Your task to perform on an android device: See recent photos Image 0: 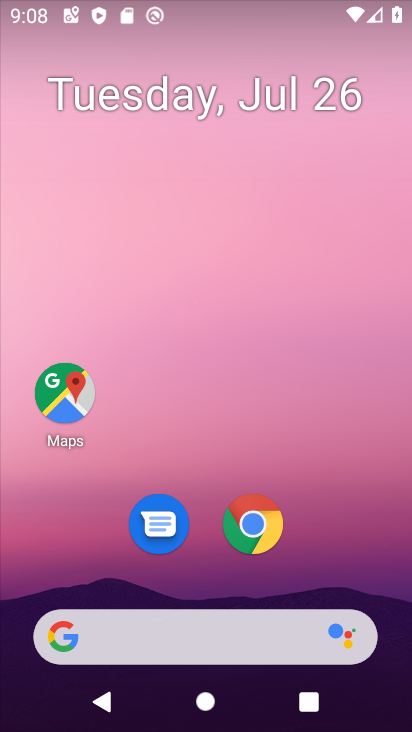
Step 0: press home button
Your task to perform on an android device: See recent photos Image 1: 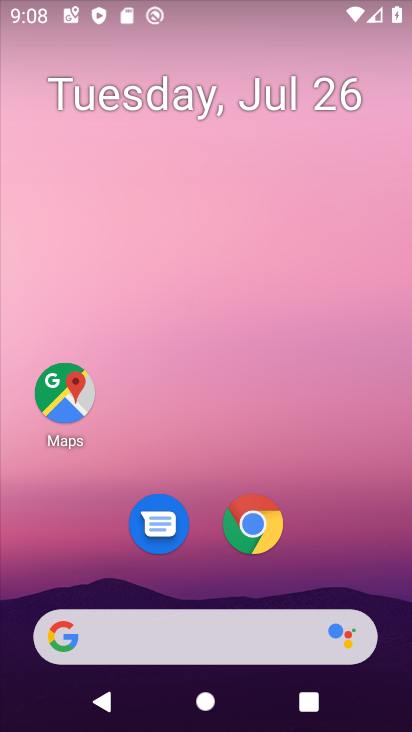
Step 1: drag from (166, 621) to (400, 31)
Your task to perform on an android device: See recent photos Image 2: 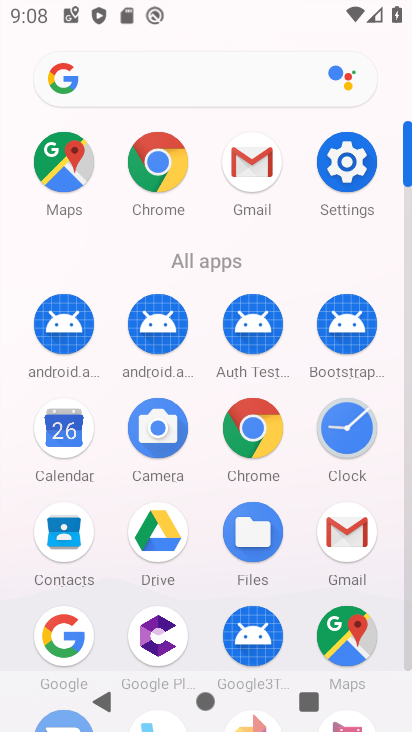
Step 2: drag from (206, 533) to (340, 155)
Your task to perform on an android device: See recent photos Image 3: 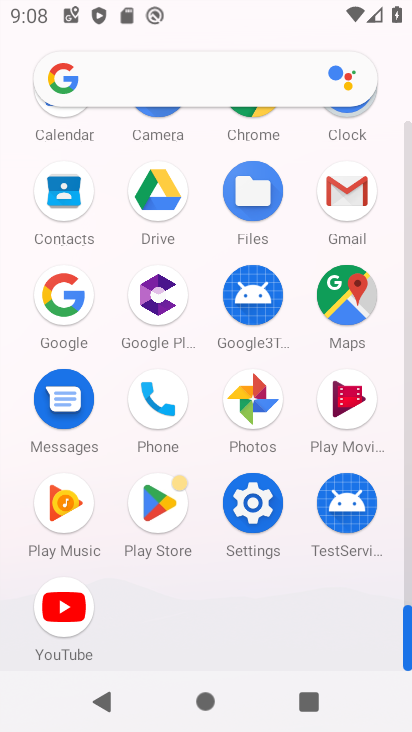
Step 3: click (253, 395)
Your task to perform on an android device: See recent photos Image 4: 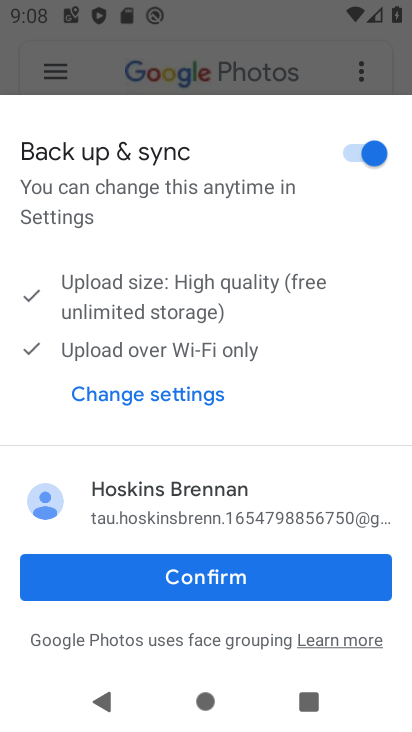
Step 4: click (214, 583)
Your task to perform on an android device: See recent photos Image 5: 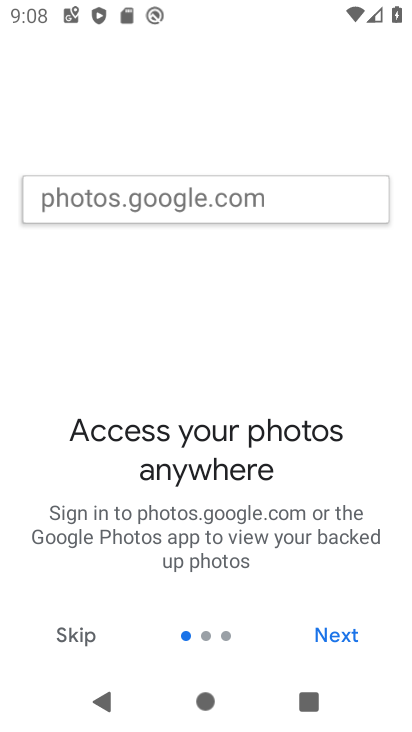
Step 5: click (345, 626)
Your task to perform on an android device: See recent photos Image 6: 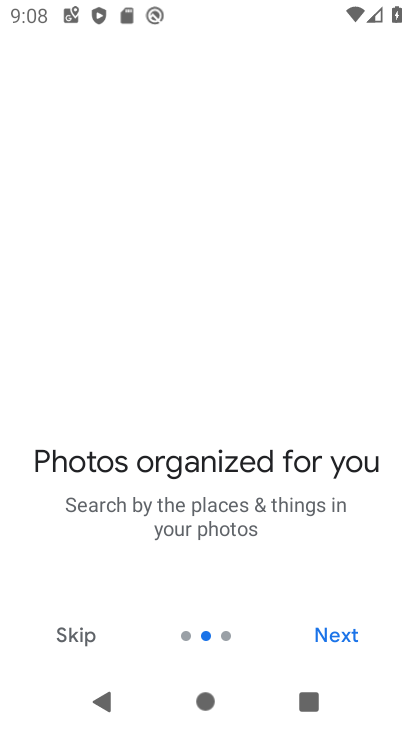
Step 6: click (340, 638)
Your task to perform on an android device: See recent photos Image 7: 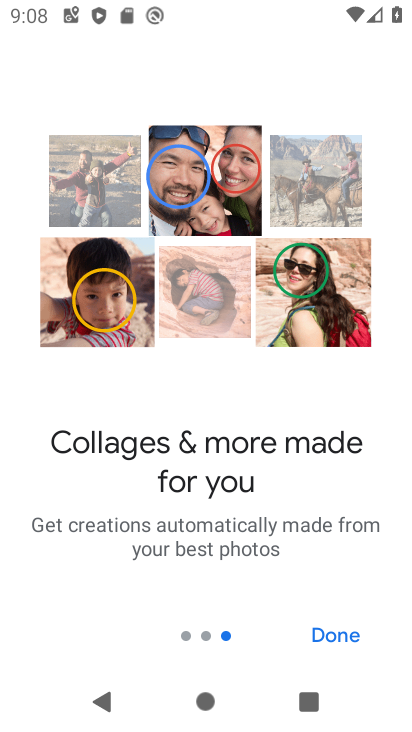
Step 7: click (337, 634)
Your task to perform on an android device: See recent photos Image 8: 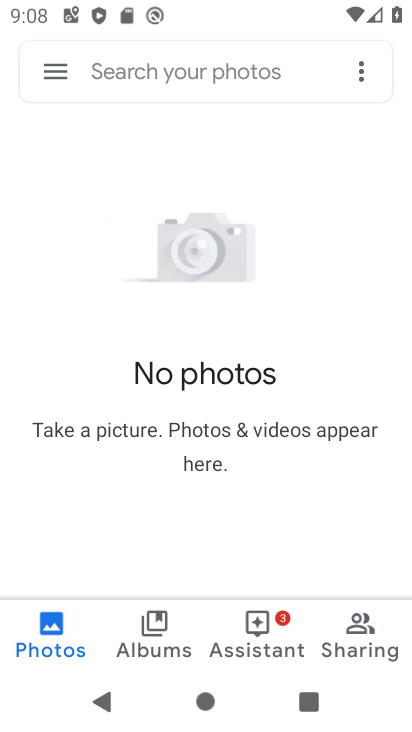
Step 8: click (158, 639)
Your task to perform on an android device: See recent photos Image 9: 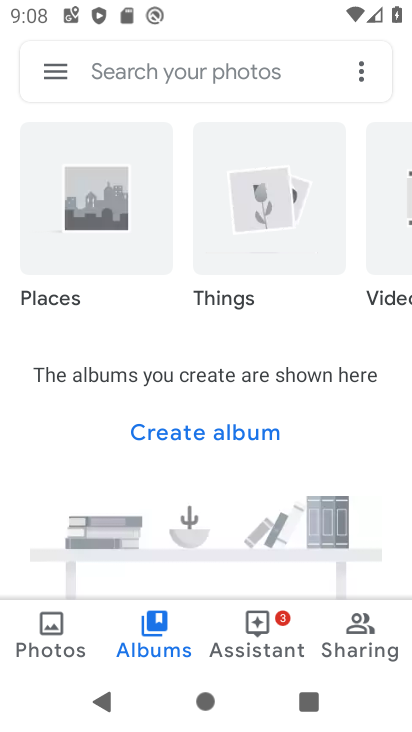
Step 9: drag from (384, 252) to (116, 171)
Your task to perform on an android device: See recent photos Image 10: 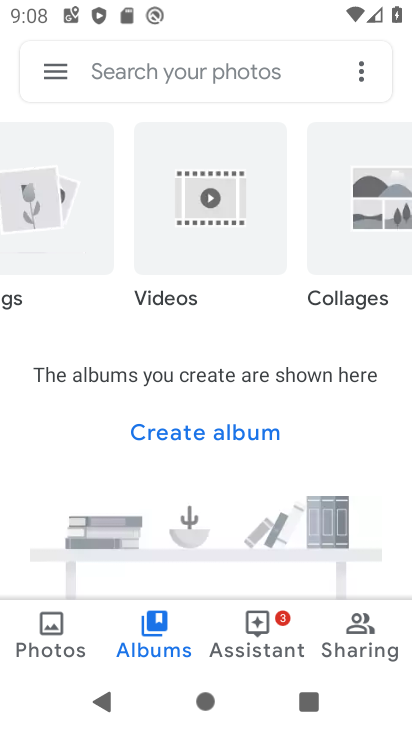
Step 10: click (132, 68)
Your task to perform on an android device: See recent photos Image 11: 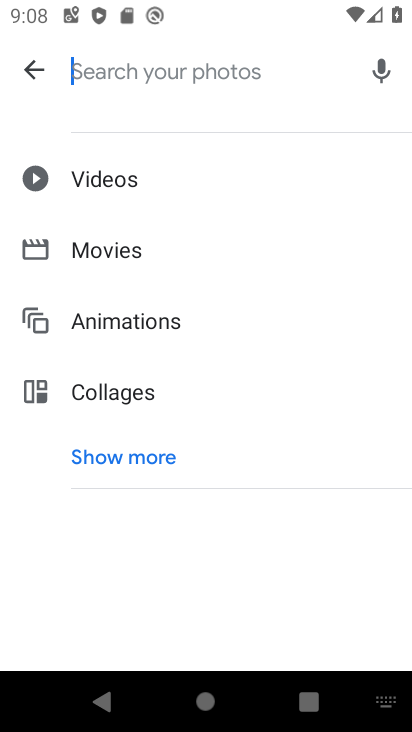
Step 11: click (144, 460)
Your task to perform on an android device: See recent photos Image 12: 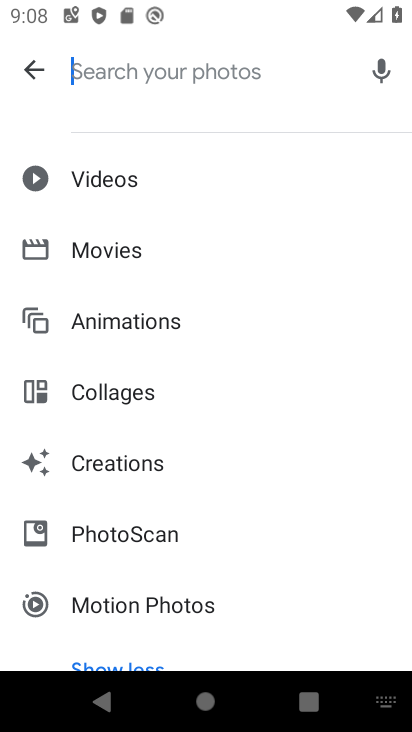
Step 12: task complete